Your task to perform on an android device: Go to wifi settings Image 0: 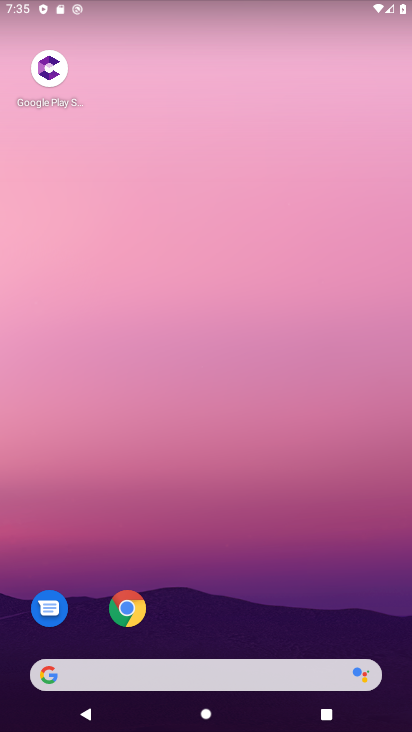
Step 0: drag from (391, 661) to (360, 274)
Your task to perform on an android device: Go to wifi settings Image 1: 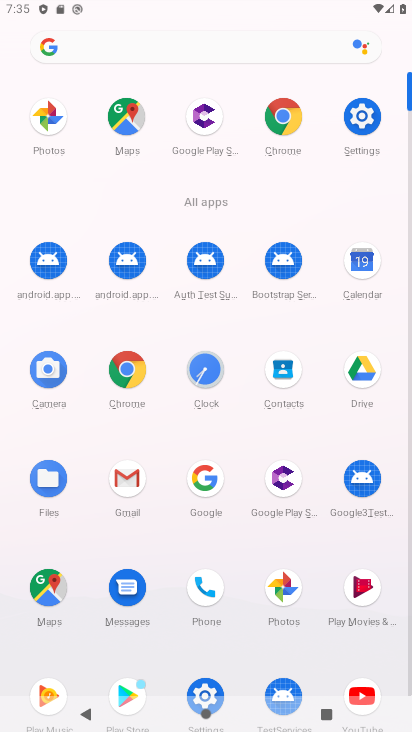
Step 1: click (353, 127)
Your task to perform on an android device: Go to wifi settings Image 2: 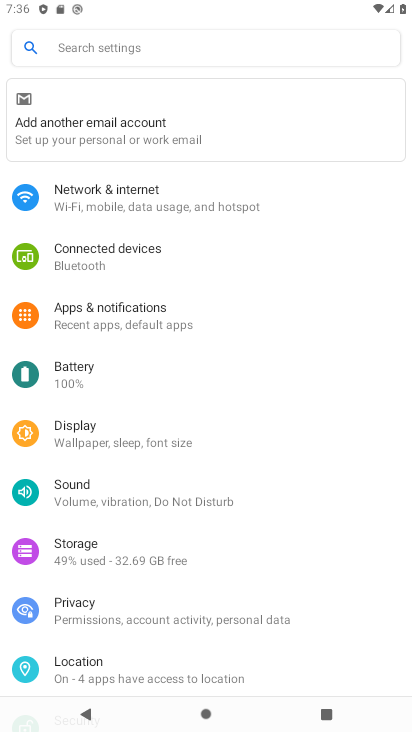
Step 2: click (89, 189)
Your task to perform on an android device: Go to wifi settings Image 3: 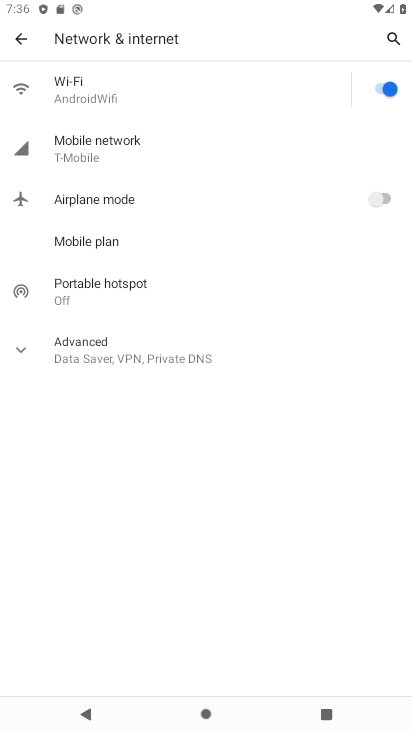
Step 3: click (90, 90)
Your task to perform on an android device: Go to wifi settings Image 4: 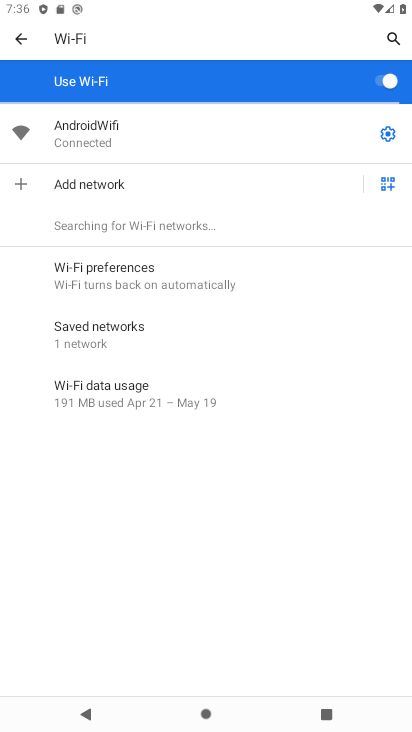
Step 4: click (382, 136)
Your task to perform on an android device: Go to wifi settings Image 5: 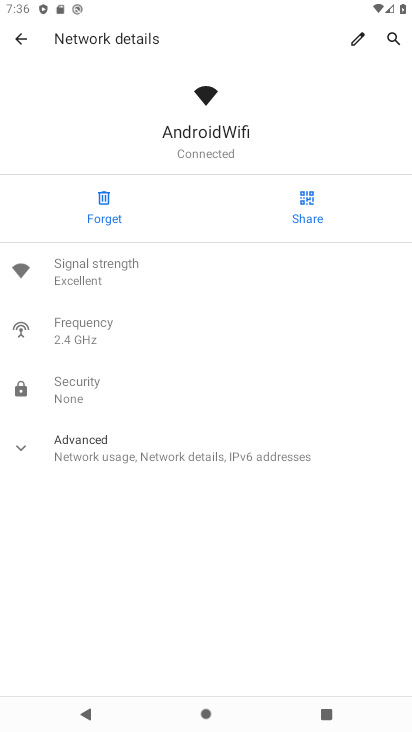
Step 5: task complete